Your task to perform on an android device: open a bookmark in the chrome app Image 0: 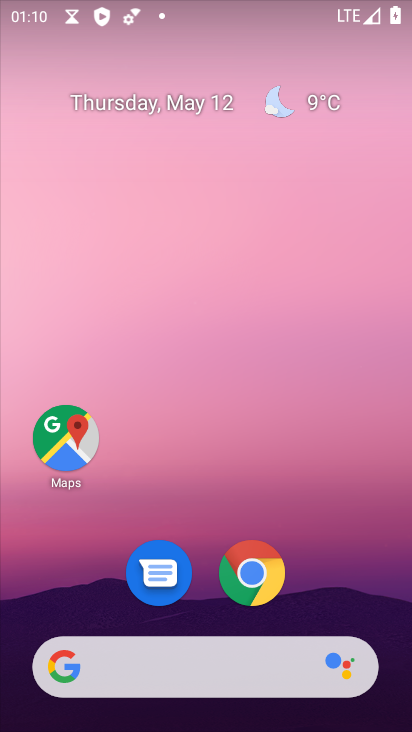
Step 0: click (251, 565)
Your task to perform on an android device: open a bookmark in the chrome app Image 1: 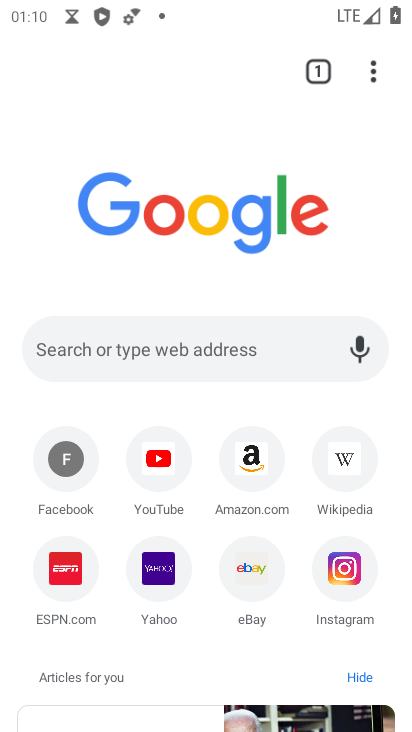
Step 1: click (369, 64)
Your task to perform on an android device: open a bookmark in the chrome app Image 2: 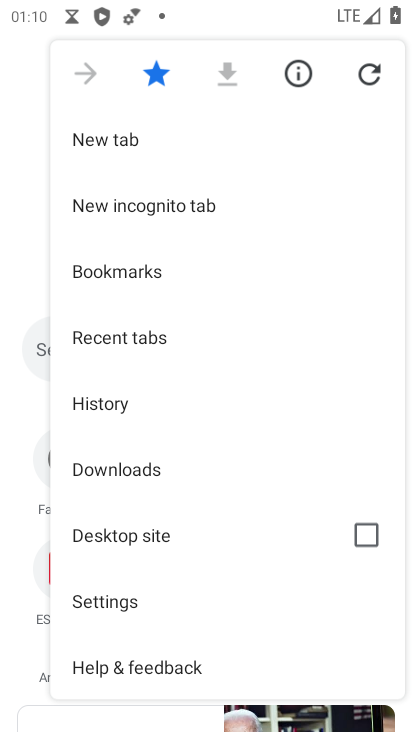
Step 2: click (133, 277)
Your task to perform on an android device: open a bookmark in the chrome app Image 3: 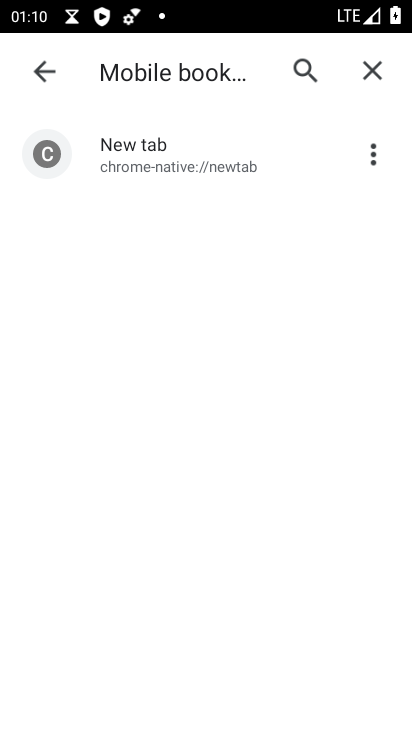
Step 3: click (148, 142)
Your task to perform on an android device: open a bookmark in the chrome app Image 4: 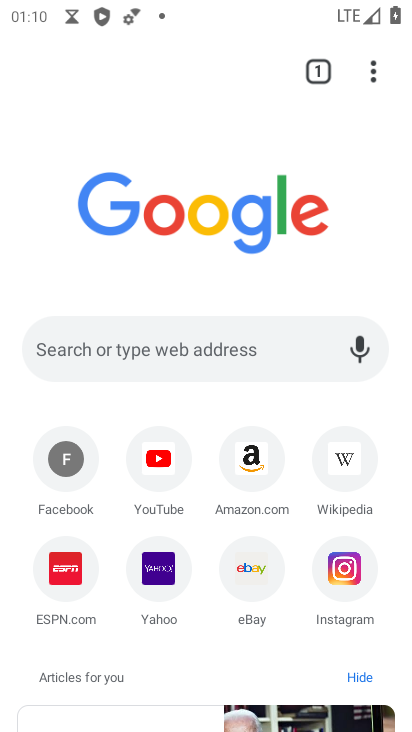
Step 4: task complete